Your task to perform on an android device: turn off javascript in the chrome app Image 0: 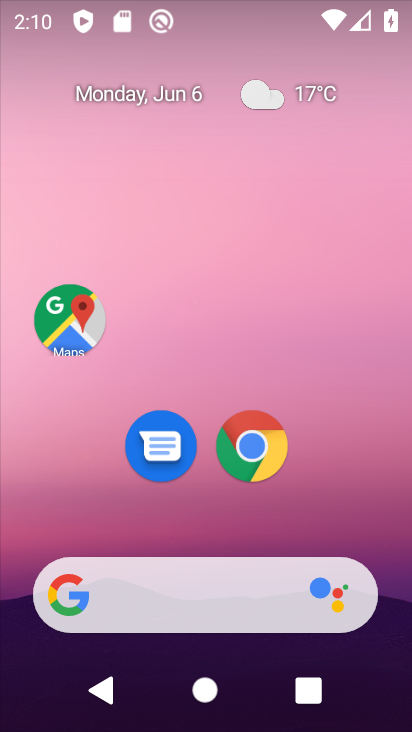
Step 0: click (261, 452)
Your task to perform on an android device: turn off javascript in the chrome app Image 1: 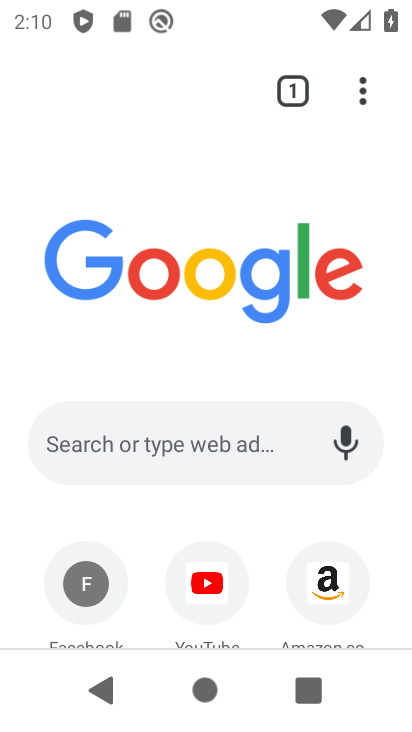
Step 1: drag from (368, 92) to (105, 463)
Your task to perform on an android device: turn off javascript in the chrome app Image 2: 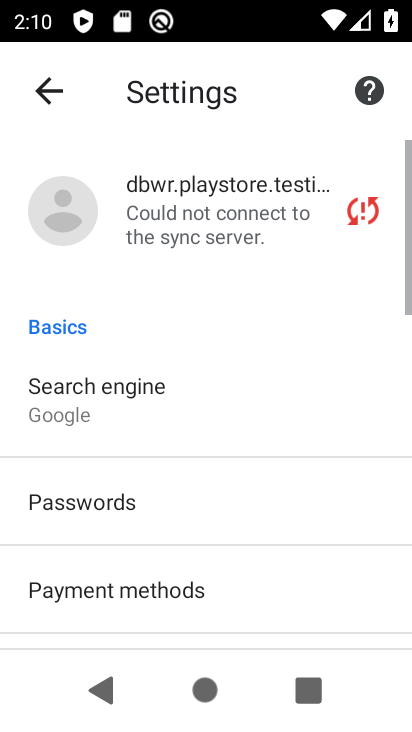
Step 2: drag from (215, 595) to (316, 76)
Your task to perform on an android device: turn off javascript in the chrome app Image 3: 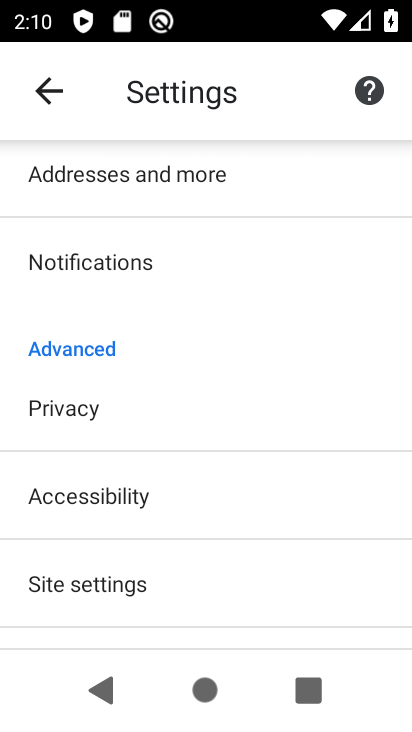
Step 3: click (96, 599)
Your task to perform on an android device: turn off javascript in the chrome app Image 4: 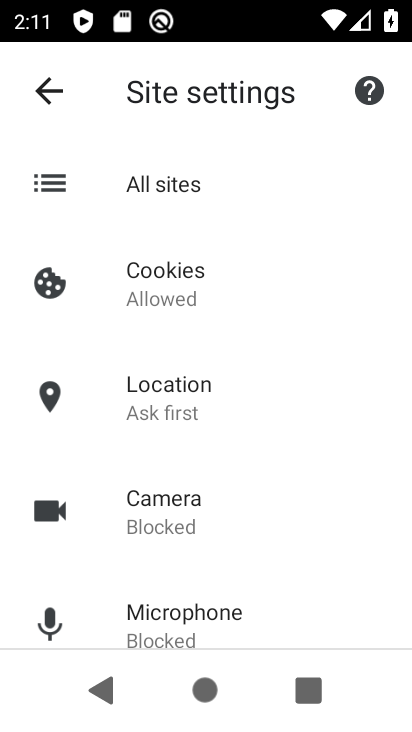
Step 4: drag from (251, 575) to (308, 164)
Your task to perform on an android device: turn off javascript in the chrome app Image 5: 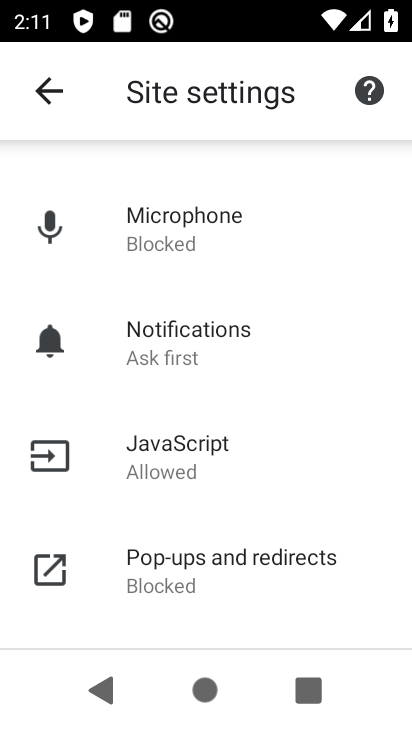
Step 5: click (196, 440)
Your task to perform on an android device: turn off javascript in the chrome app Image 6: 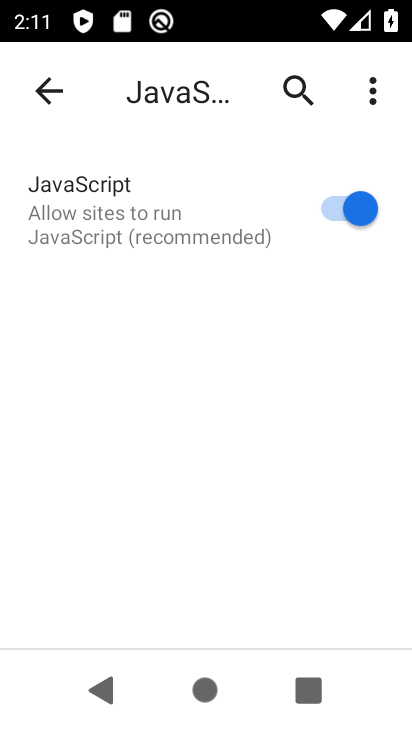
Step 6: click (361, 190)
Your task to perform on an android device: turn off javascript in the chrome app Image 7: 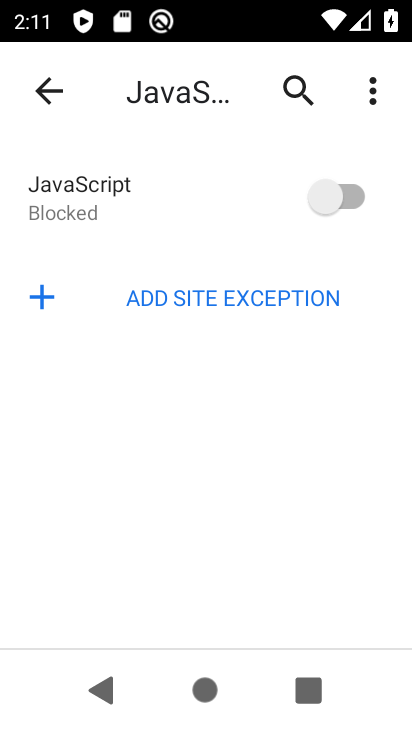
Step 7: task complete